Your task to perform on an android device: Show me recent news Image 0: 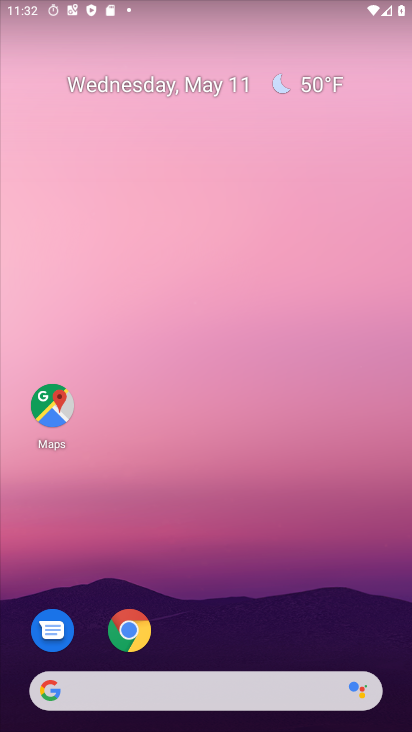
Step 0: click (130, 632)
Your task to perform on an android device: Show me recent news Image 1: 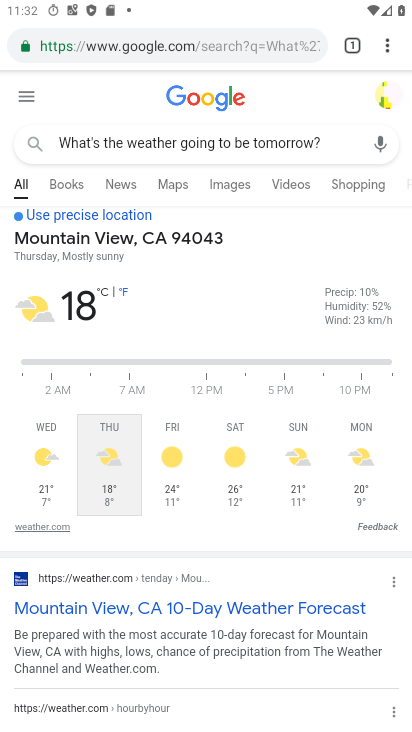
Step 1: click (164, 44)
Your task to perform on an android device: Show me recent news Image 2: 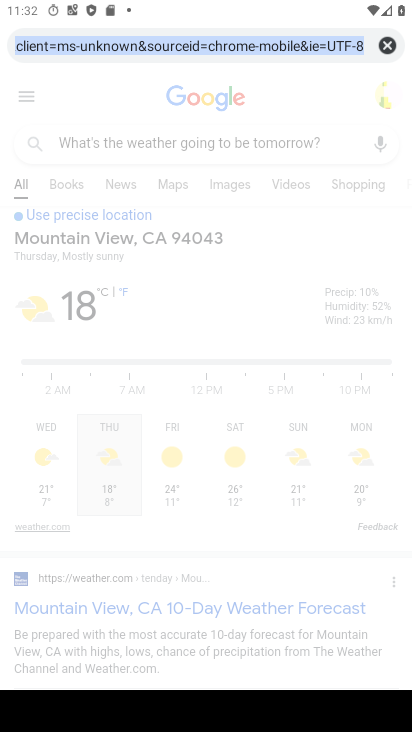
Step 2: type "recent news"
Your task to perform on an android device: Show me recent news Image 3: 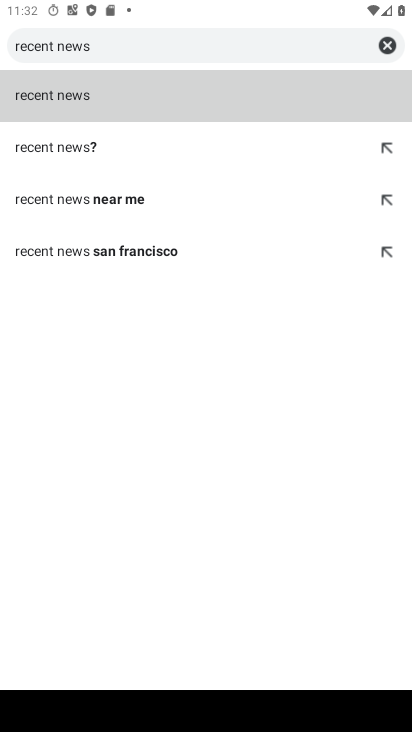
Step 3: click (142, 97)
Your task to perform on an android device: Show me recent news Image 4: 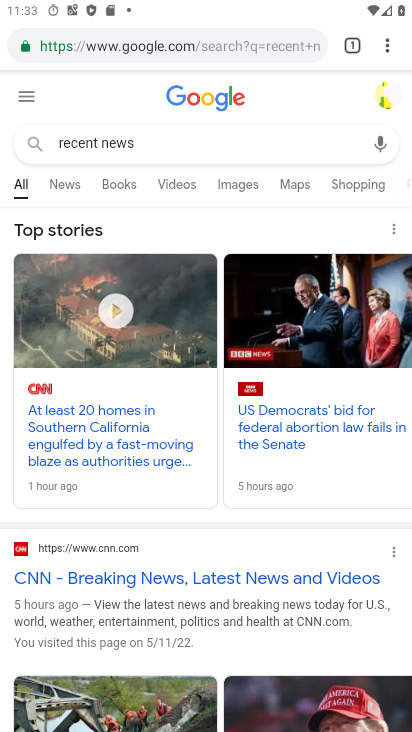
Step 4: task complete